Your task to perform on an android device: Open Maps and search for coffee Image 0: 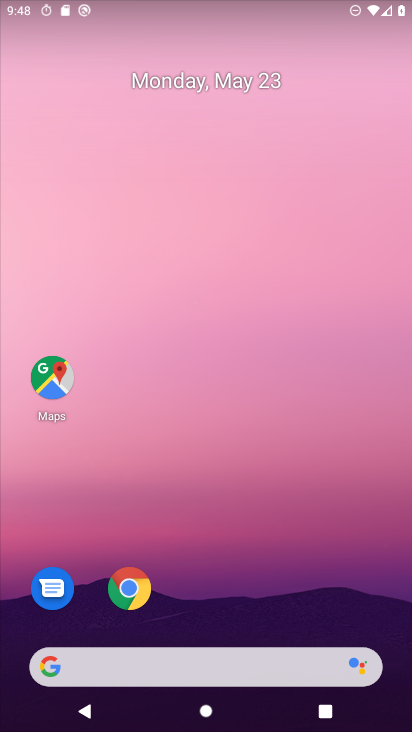
Step 0: drag from (397, 699) to (386, 197)
Your task to perform on an android device: Open Maps and search for coffee Image 1: 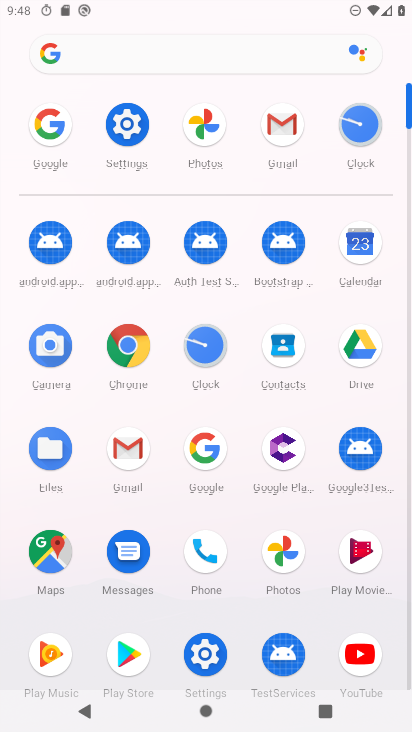
Step 1: click (53, 541)
Your task to perform on an android device: Open Maps and search for coffee Image 2: 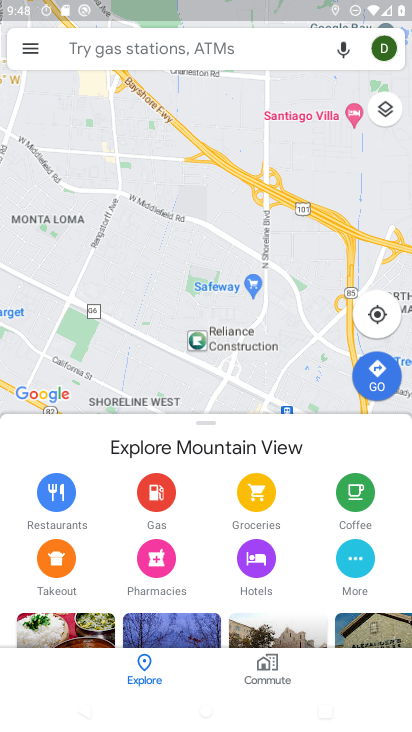
Step 2: click (84, 49)
Your task to perform on an android device: Open Maps and search for coffee Image 3: 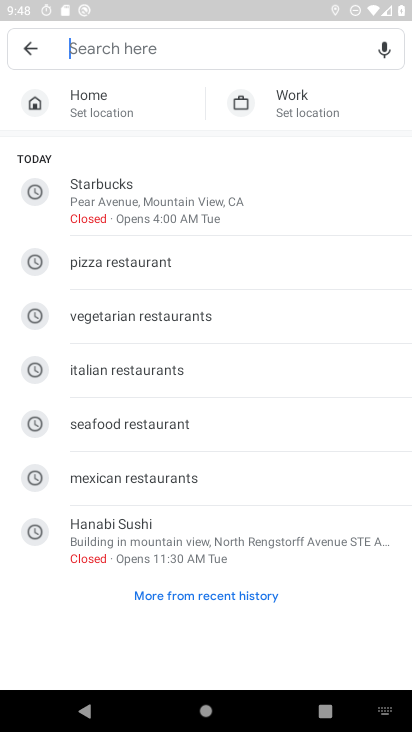
Step 3: type "coffee"
Your task to perform on an android device: Open Maps and search for coffee Image 4: 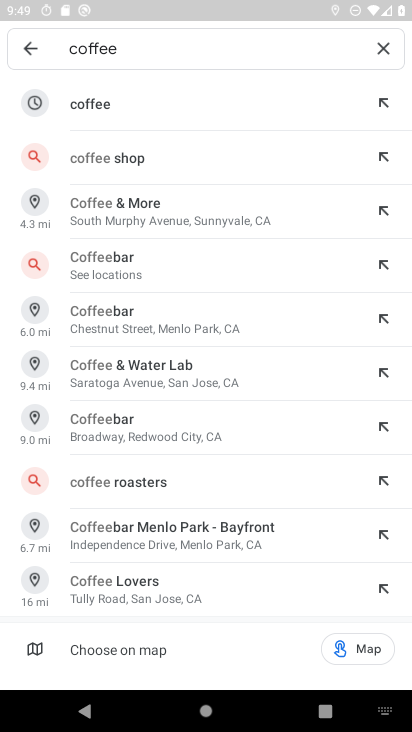
Step 4: click (87, 157)
Your task to perform on an android device: Open Maps and search for coffee Image 5: 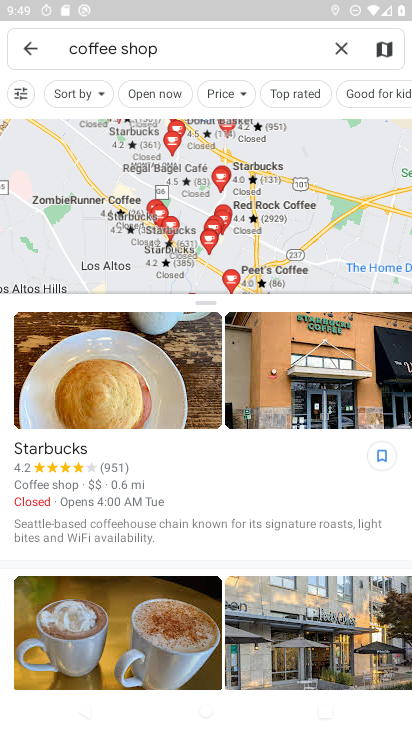
Step 5: task complete